Your task to perform on an android device: Open Google Maps and go to "Timeline" Image 0: 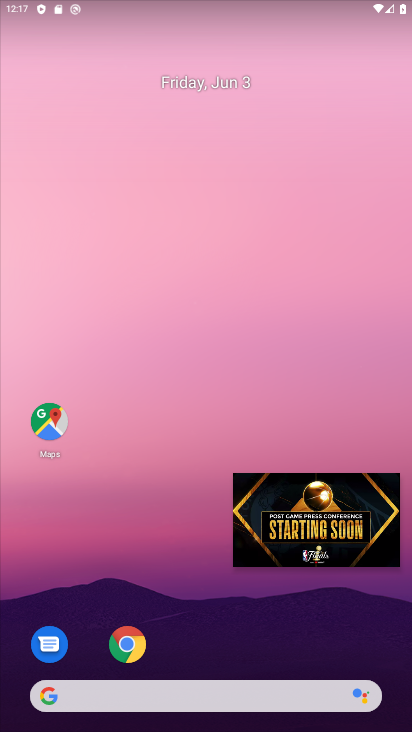
Step 0: click (384, 491)
Your task to perform on an android device: Open Google Maps and go to "Timeline" Image 1: 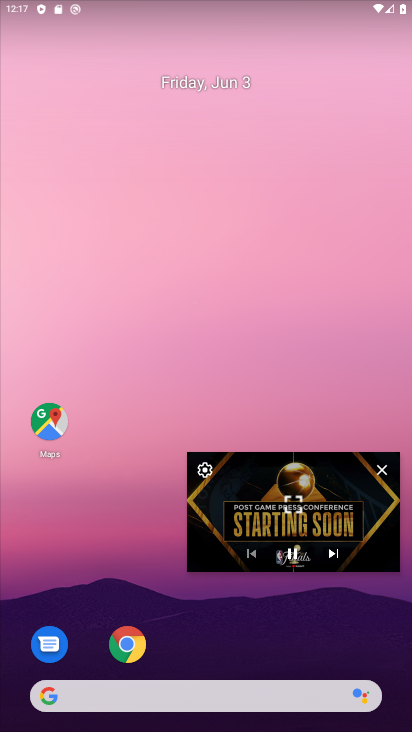
Step 1: click (383, 467)
Your task to perform on an android device: Open Google Maps and go to "Timeline" Image 2: 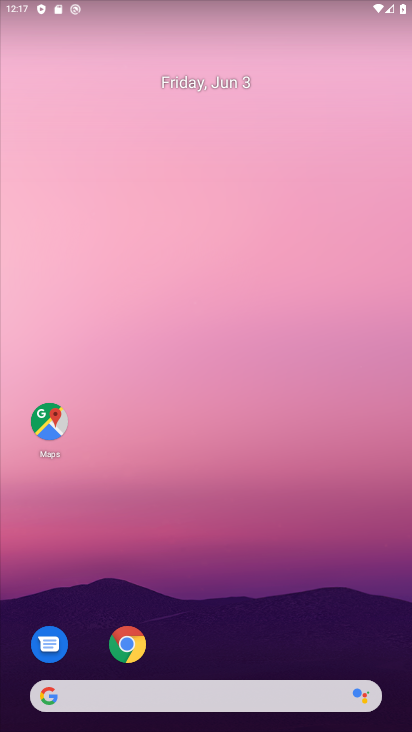
Step 2: drag from (217, 710) to (217, 80)
Your task to perform on an android device: Open Google Maps and go to "Timeline" Image 3: 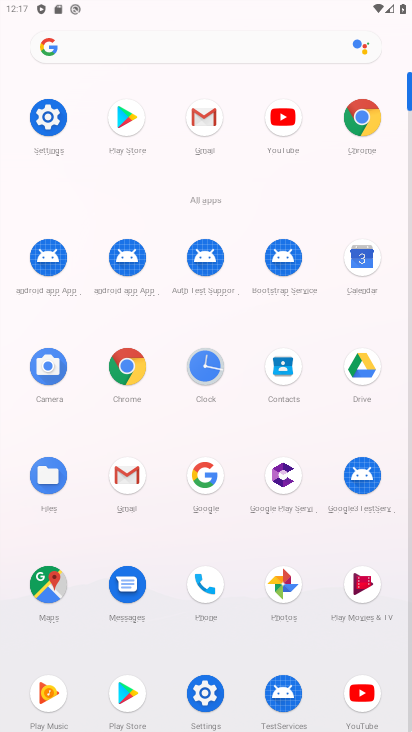
Step 3: click (42, 590)
Your task to perform on an android device: Open Google Maps and go to "Timeline" Image 4: 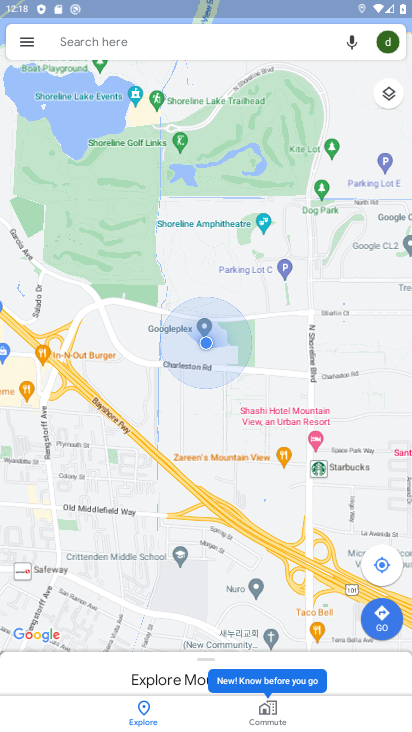
Step 4: click (24, 43)
Your task to perform on an android device: Open Google Maps and go to "Timeline" Image 5: 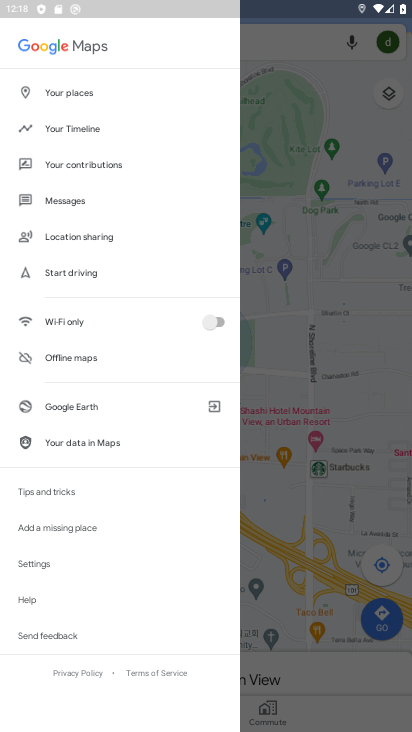
Step 5: click (82, 125)
Your task to perform on an android device: Open Google Maps and go to "Timeline" Image 6: 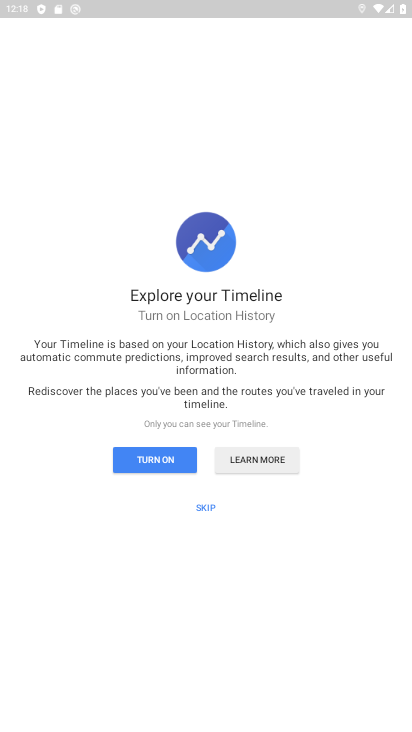
Step 6: click (206, 507)
Your task to perform on an android device: Open Google Maps and go to "Timeline" Image 7: 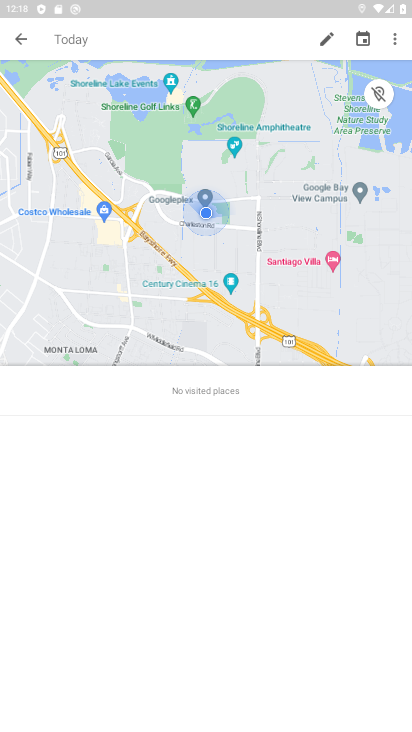
Step 7: task complete